Your task to perform on an android device: Go to Maps Image 0: 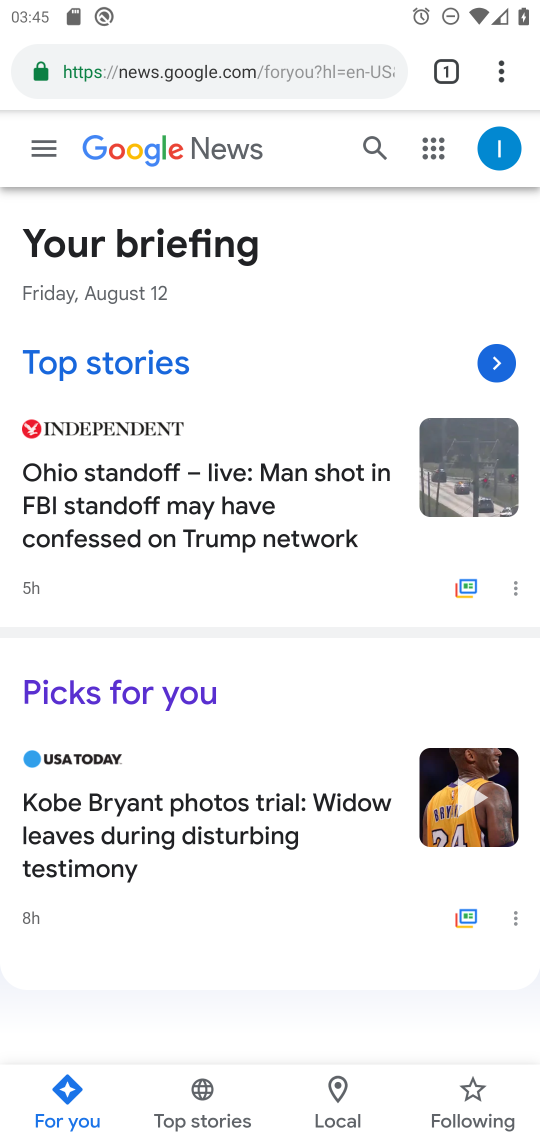
Step 0: press home button
Your task to perform on an android device: Go to Maps Image 1: 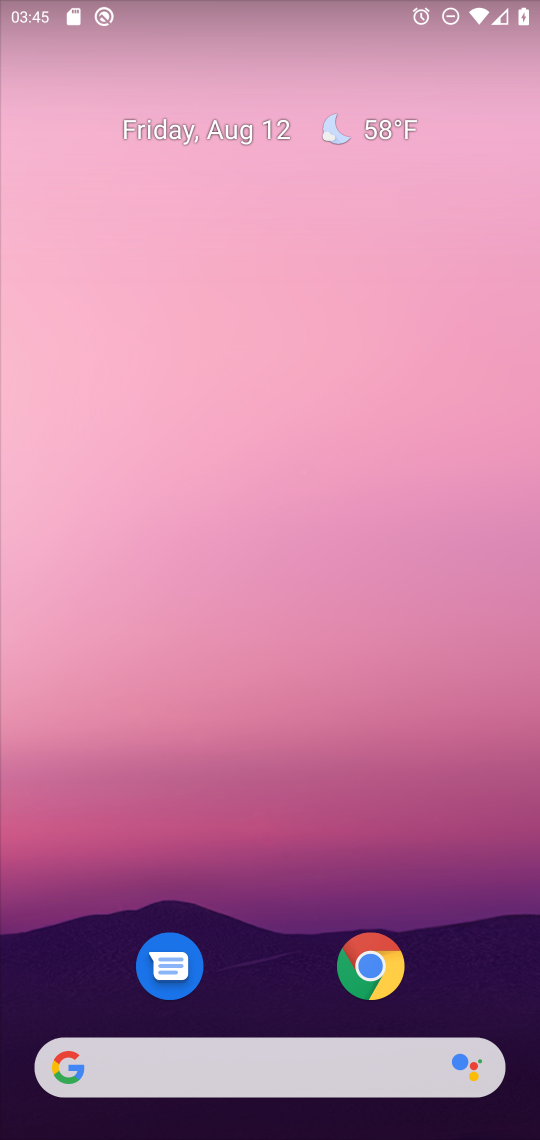
Step 1: drag from (299, 723) to (366, 0)
Your task to perform on an android device: Go to Maps Image 2: 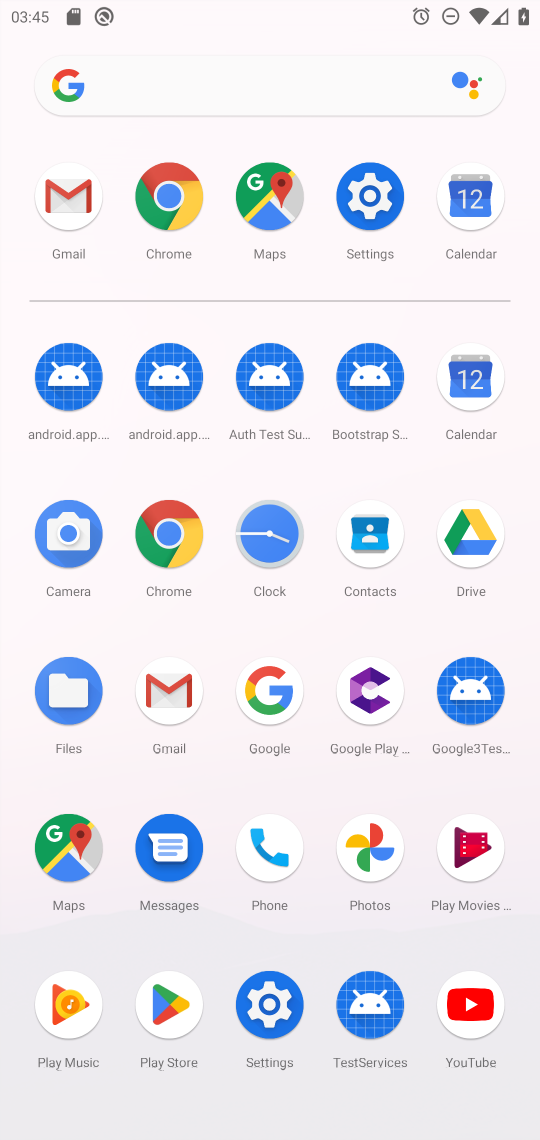
Step 2: click (60, 981)
Your task to perform on an android device: Go to Maps Image 3: 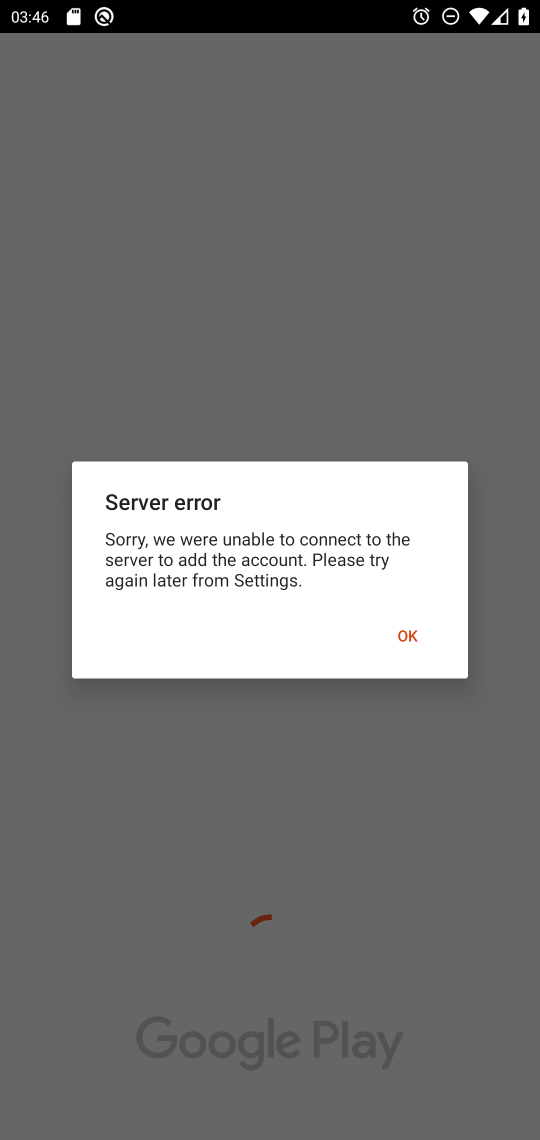
Step 3: click (420, 629)
Your task to perform on an android device: Go to Maps Image 4: 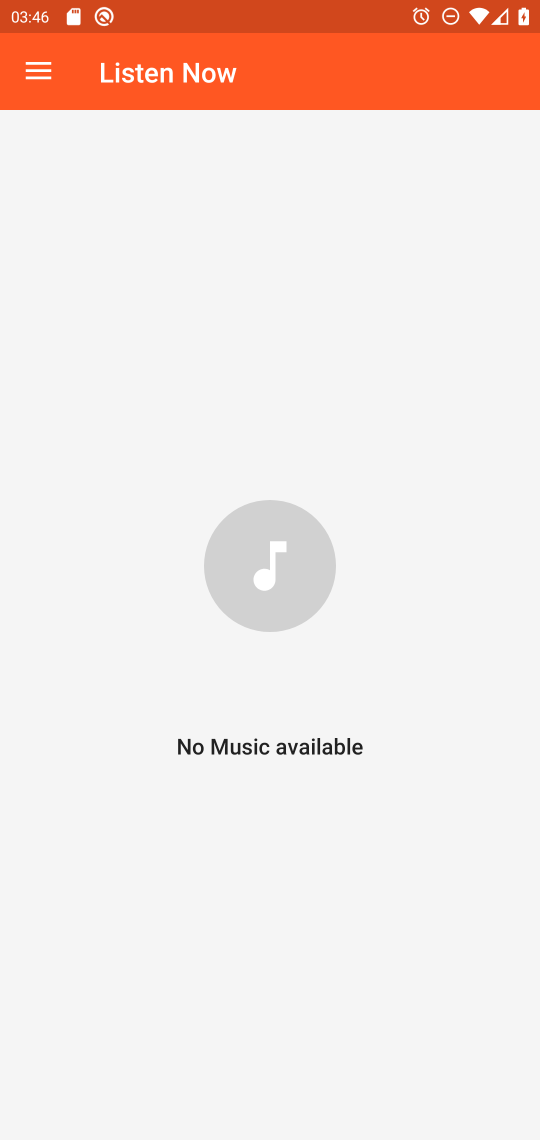
Step 4: press home button
Your task to perform on an android device: Go to Maps Image 5: 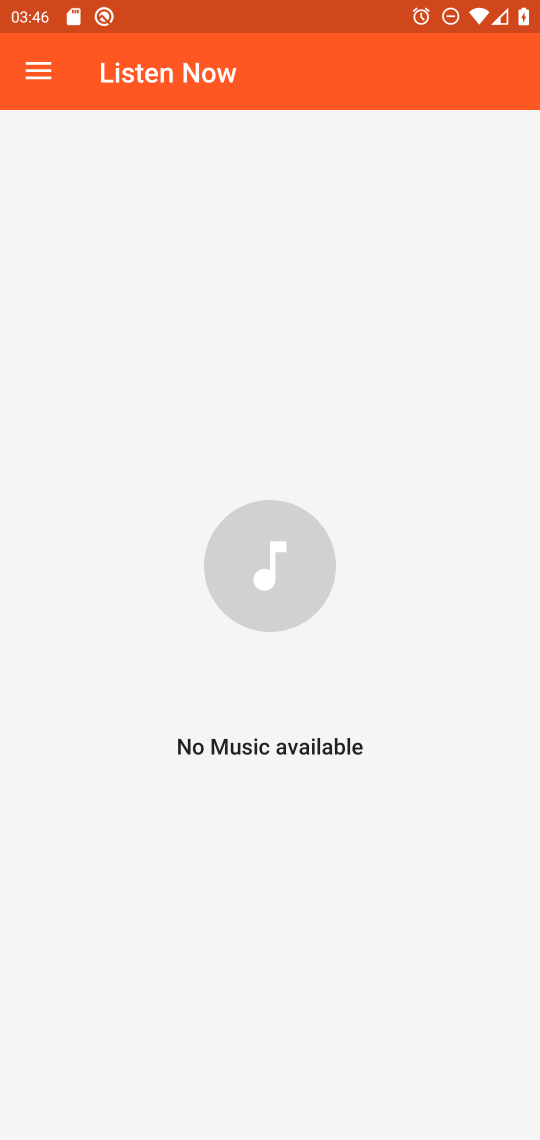
Step 5: press home button
Your task to perform on an android device: Go to Maps Image 6: 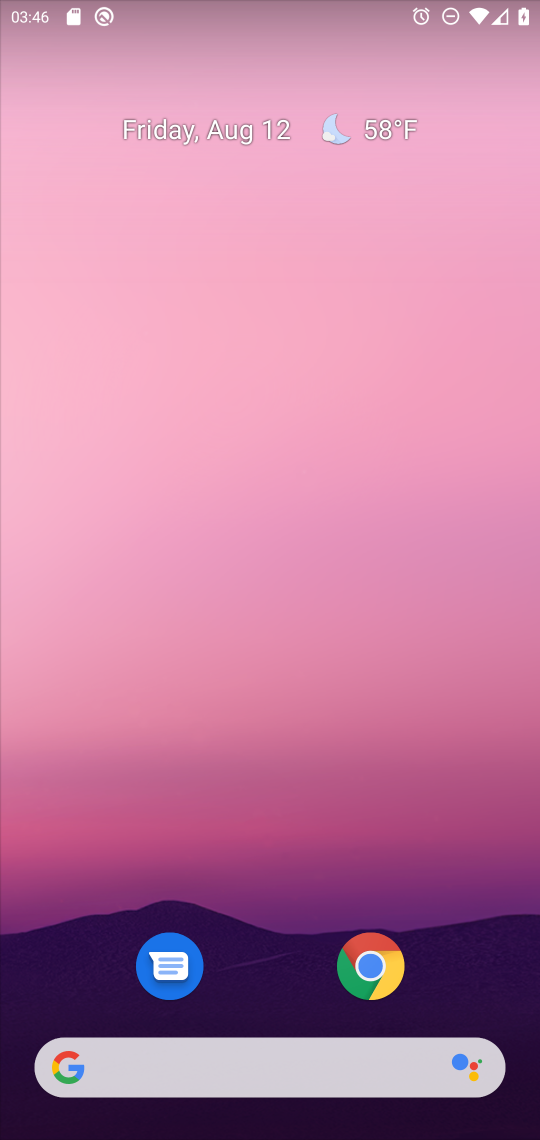
Step 6: press home button
Your task to perform on an android device: Go to Maps Image 7: 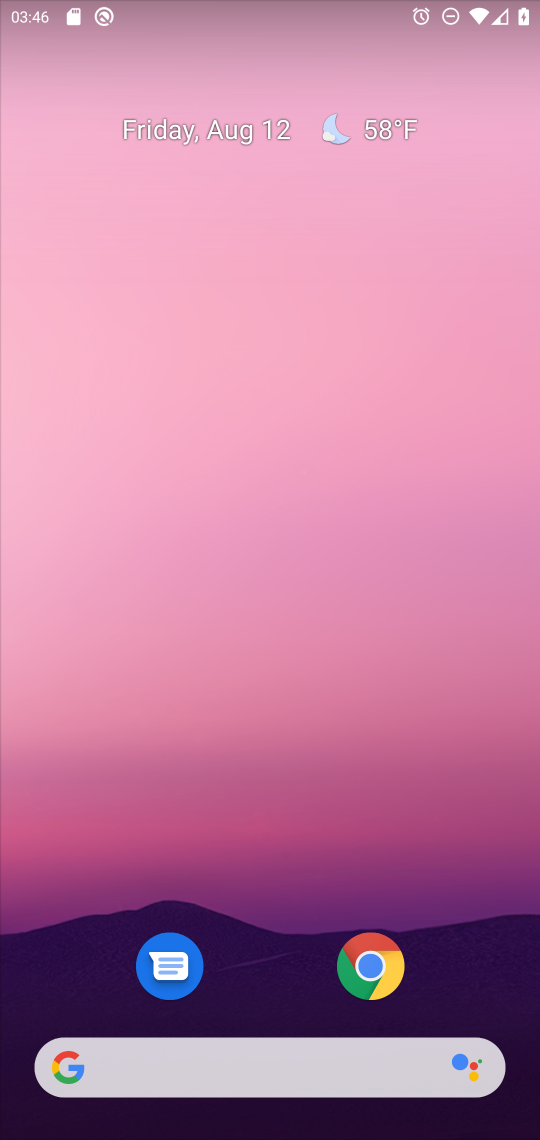
Step 7: drag from (222, 947) to (415, 123)
Your task to perform on an android device: Go to Maps Image 8: 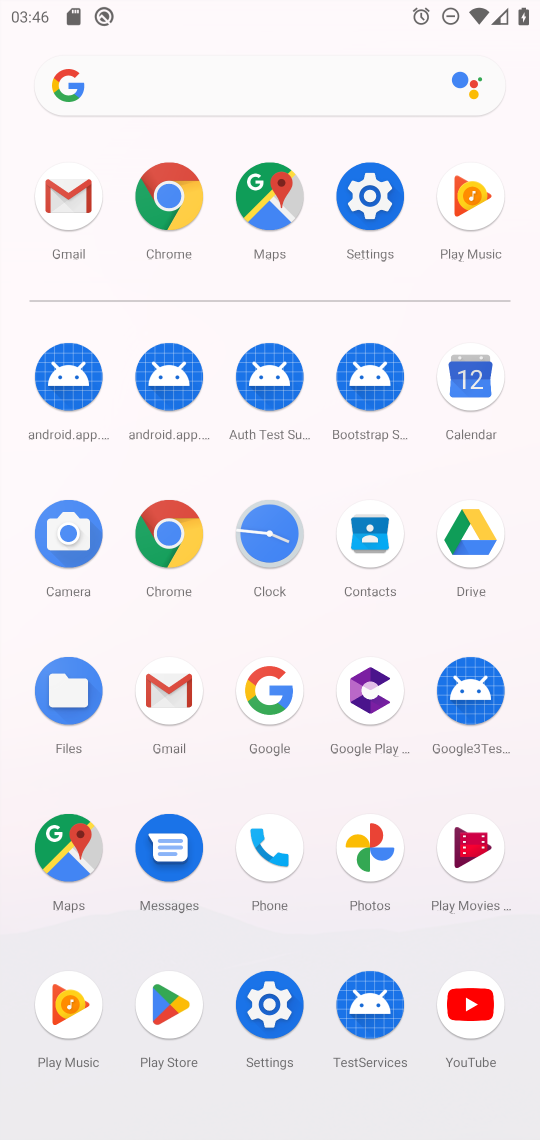
Step 8: click (54, 845)
Your task to perform on an android device: Go to Maps Image 9: 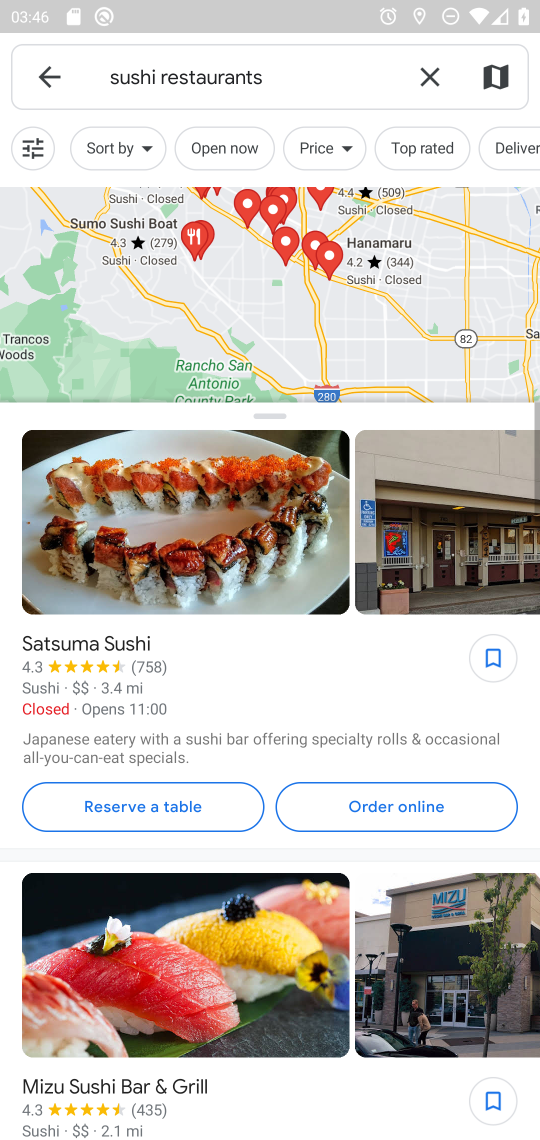
Step 9: task complete